Your task to perform on an android device: Search for Mexican restaurants on Maps Image 0: 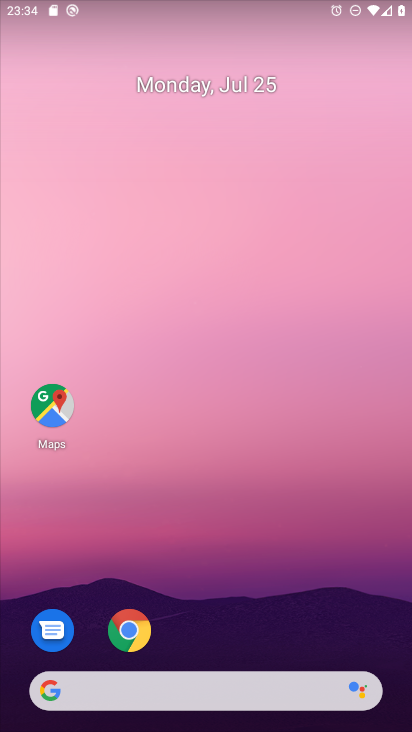
Step 0: drag from (344, 609) to (282, 1)
Your task to perform on an android device: Search for Mexican restaurants on Maps Image 1: 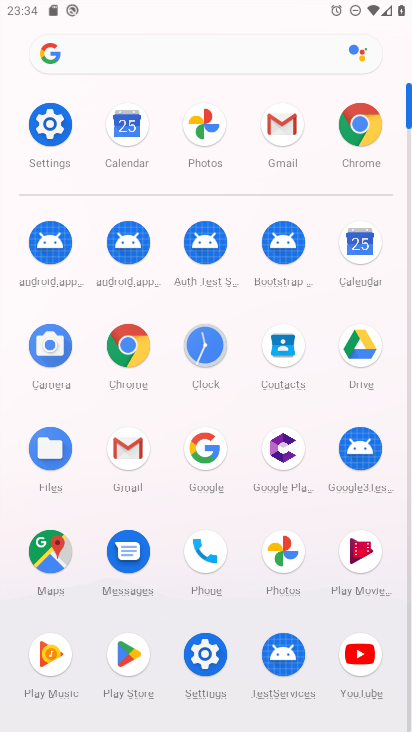
Step 1: click (42, 559)
Your task to perform on an android device: Search for Mexican restaurants on Maps Image 2: 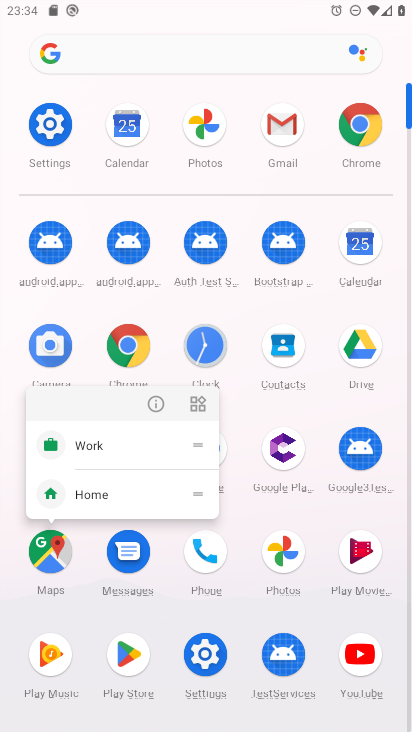
Step 2: click (44, 558)
Your task to perform on an android device: Search for Mexican restaurants on Maps Image 3: 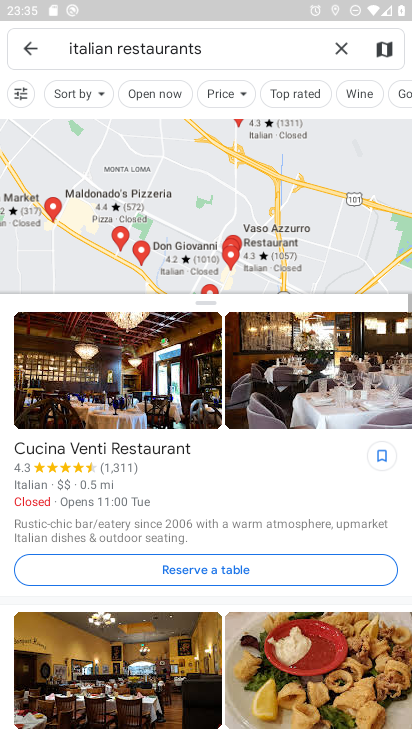
Step 3: click (341, 51)
Your task to perform on an android device: Search for Mexican restaurants on Maps Image 4: 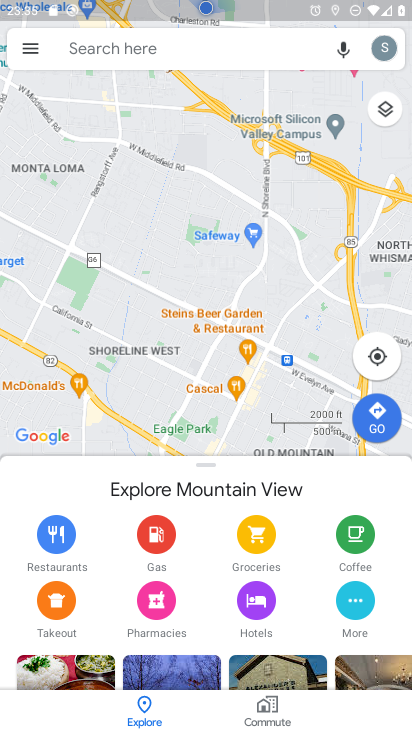
Step 4: click (288, 54)
Your task to perform on an android device: Search for Mexican restaurants on Maps Image 5: 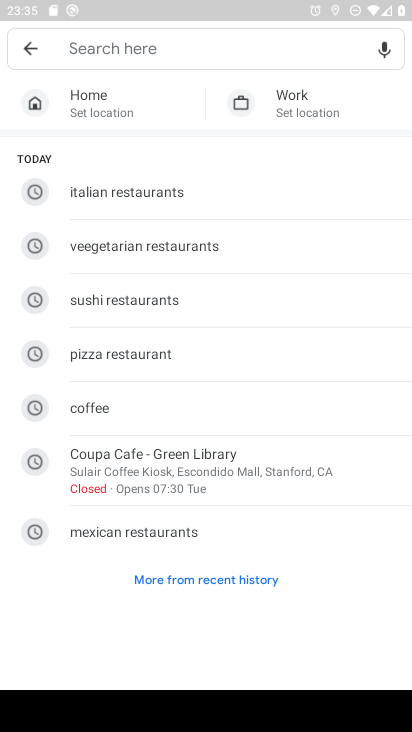
Step 5: type "Mexican restaurants"
Your task to perform on an android device: Search for Mexican restaurants on Maps Image 6: 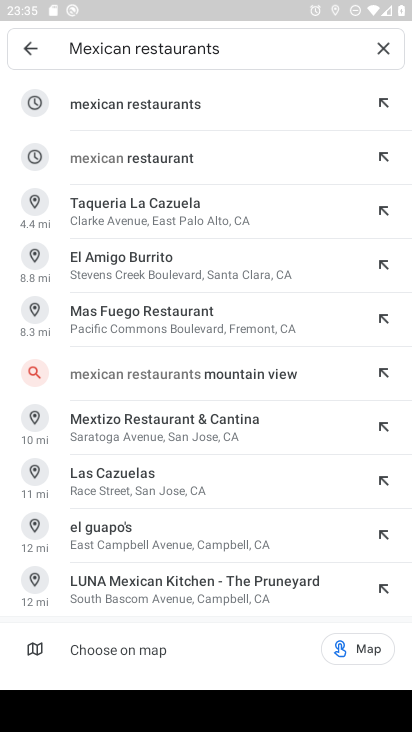
Step 6: click (208, 106)
Your task to perform on an android device: Search for Mexican restaurants on Maps Image 7: 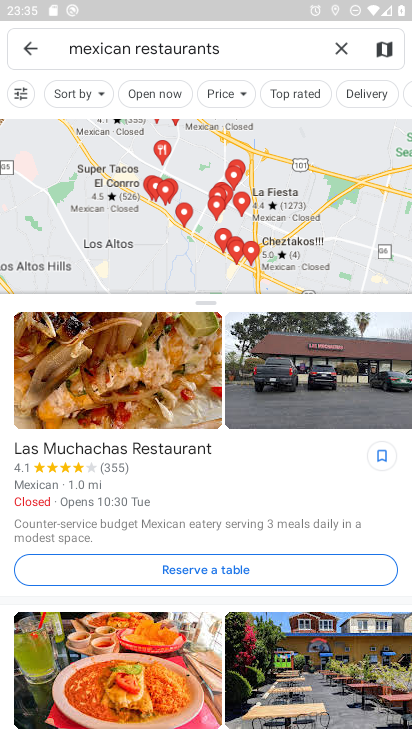
Step 7: task complete